Your task to perform on an android device: find photos in the google photos app Image 0: 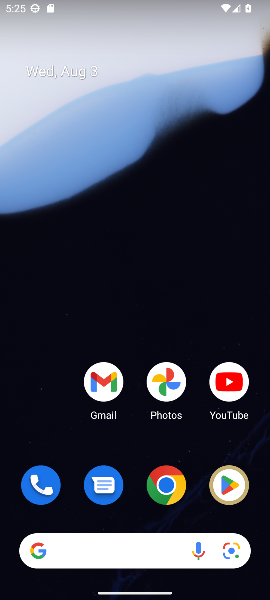
Step 0: click (171, 401)
Your task to perform on an android device: find photos in the google photos app Image 1: 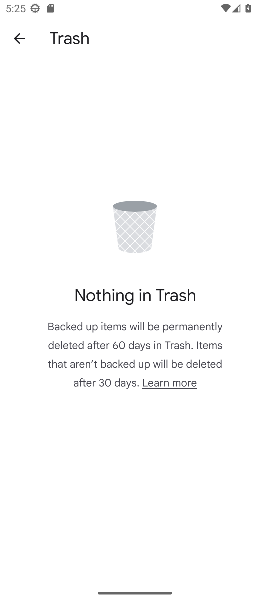
Step 1: click (11, 38)
Your task to perform on an android device: find photos in the google photos app Image 2: 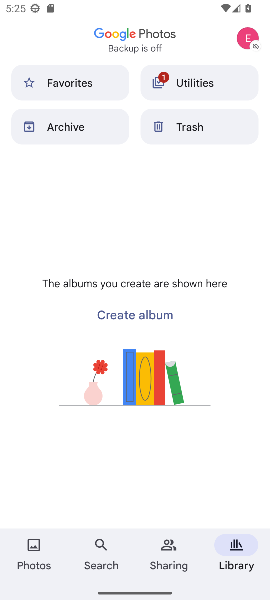
Step 2: click (29, 555)
Your task to perform on an android device: find photos in the google photos app Image 3: 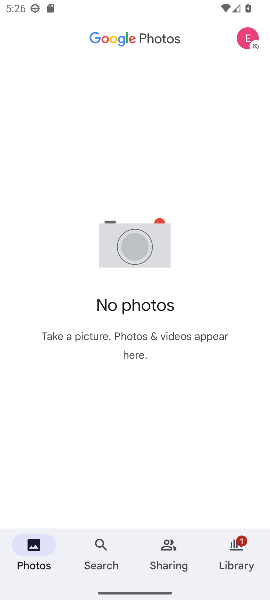
Step 3: task complete